Your task to perform on an android device: Open the Play Movies app and select the watchlist tab. Image 0: 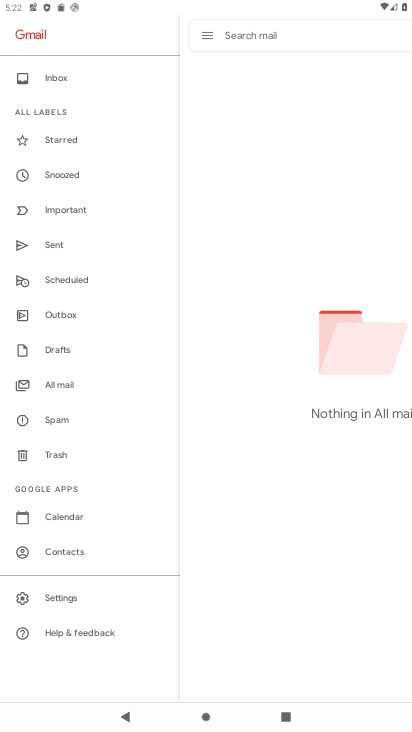
Step 0: press home button
Your task to perform on an android device: Open the Play Movies app and select the watchlist tab. Image 1: 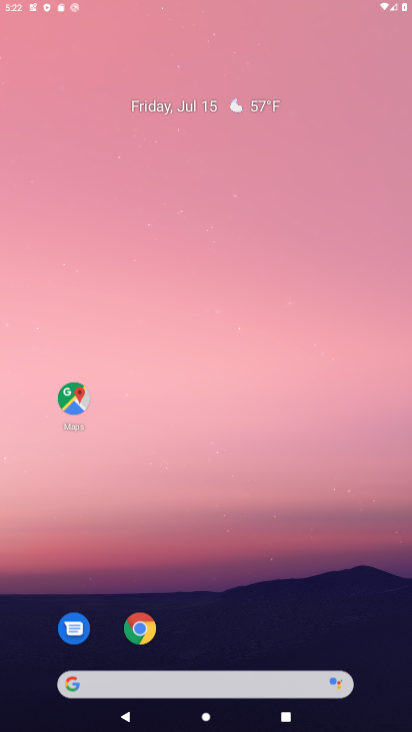
Step 1: press home button
Your task to perform on an android device: Open the Play Movies app and select the watchlist tab. Image 2: 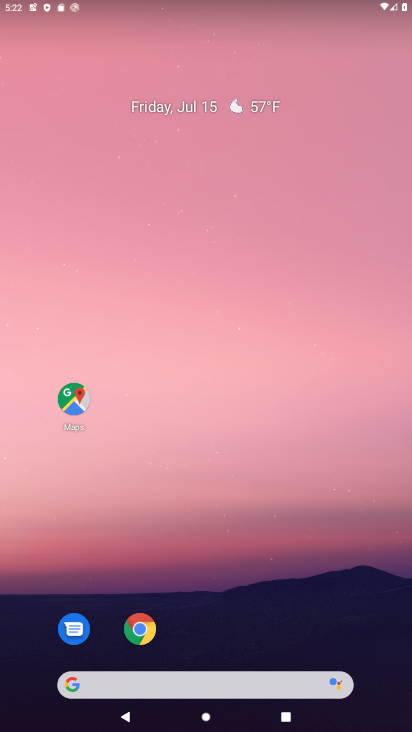
Step 2: press home button
Your task to perform on an android device: Open the Play Movies app and select the watchlist tab. Image 3: 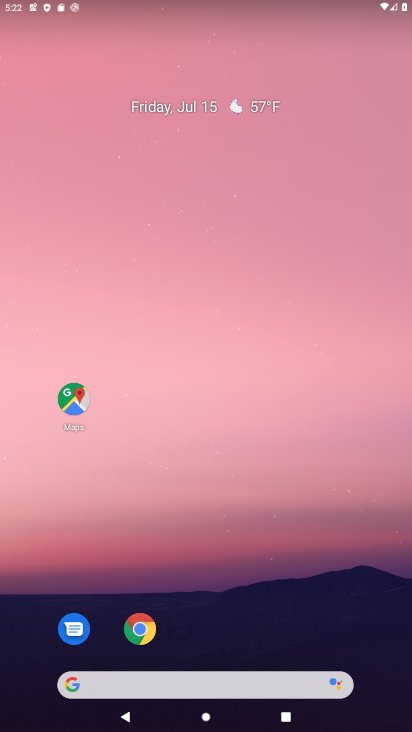
Step 3: drag from (258, 634) to (238, 147)
Your task to perform on an android device: Open the Play Movies app and select the watchlist tab. Image 4: 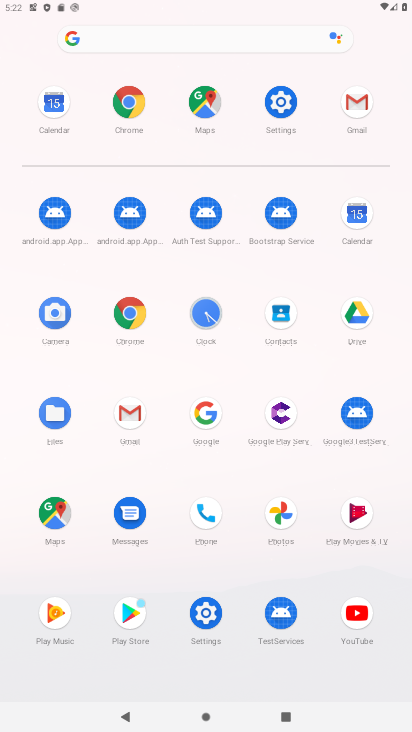
Step 4: click (358, 516)
Your task to perform on an android device: Open the Play Movies app and select the watchlist tab. Image 5: 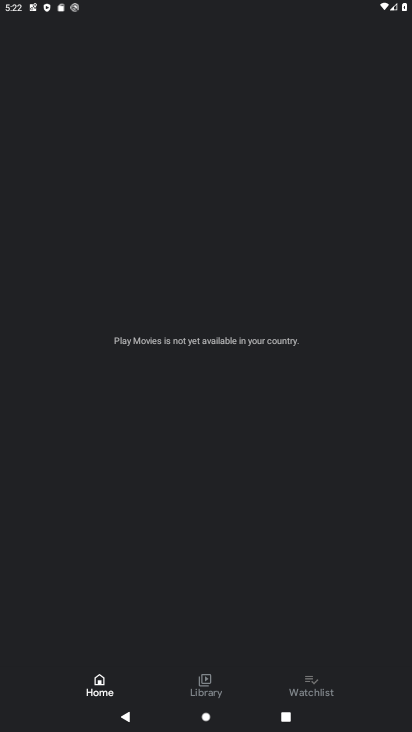
Step 5: click (305, 688)
Your task to perform on an android device: Open the Play Movies app and select the watchlist tab. Image 6: 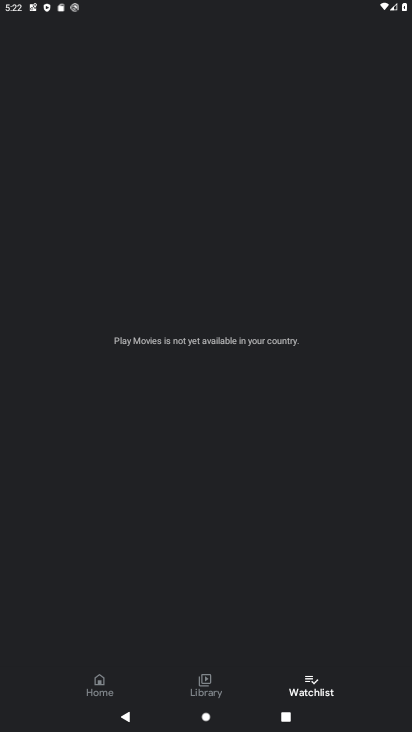
Step 6: task complete